Your task to perform on an android device: change notification settings in the gmail app Image 0: 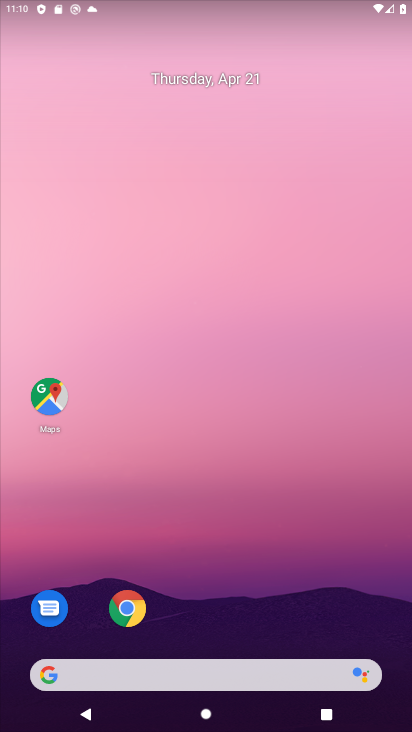
Step 0: drag from (208, 562) to (136, 54)
Your task to perform on an android device: change notification settings in the gmail app Image 1: 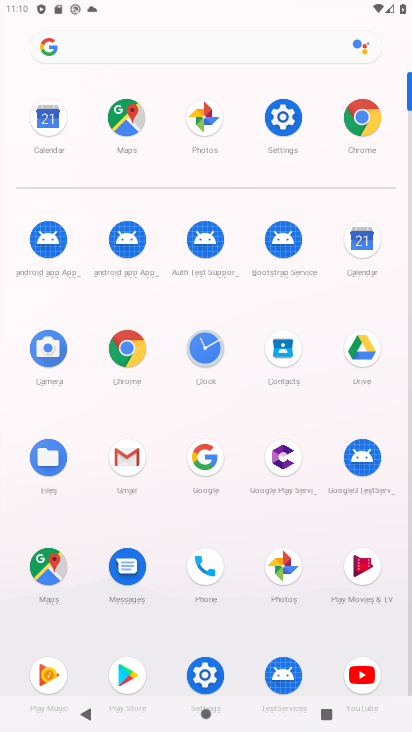
Step 1: click (133, 454)
Your task to perform on an android device: change notification settings in the gmail app Image 2: 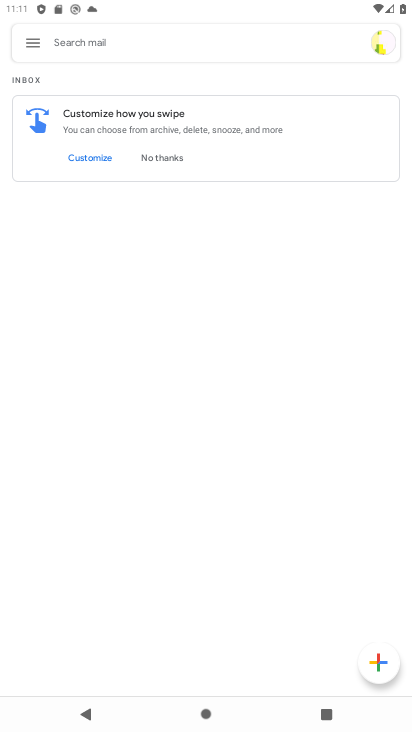
Step 2: click (31, 44)
Your task to perform on an android device: change notification settings in the gmail app Image 3: 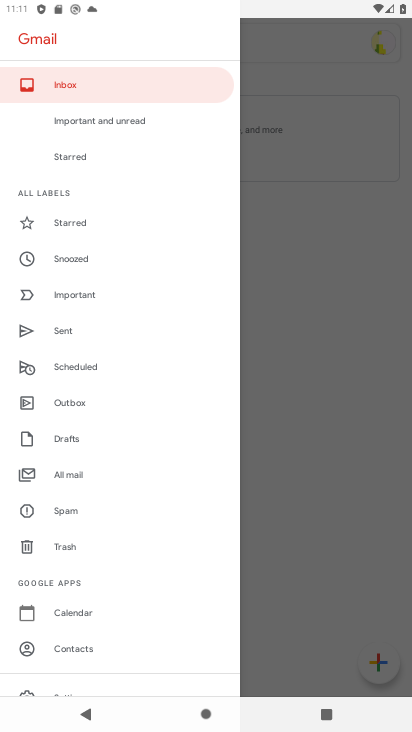
Step 3: drag from (102, 646) to (123, 375)
Your task to perform on an android device: change notification settings in the gmail app Image 4: 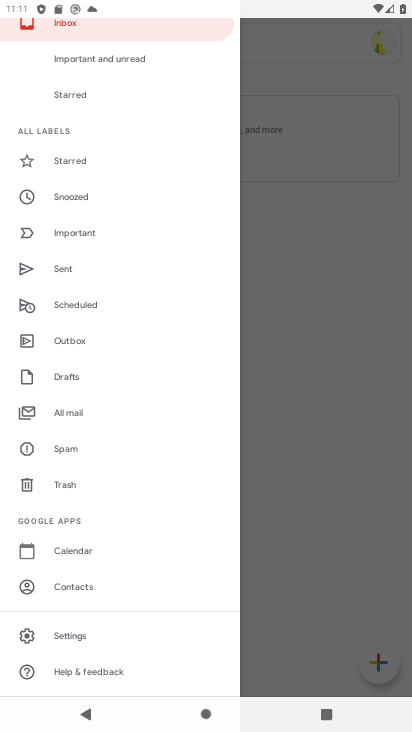
Step 4: click (62, 635)
Your task to perform on an android device: change notification settings in the gmail app Image 5: 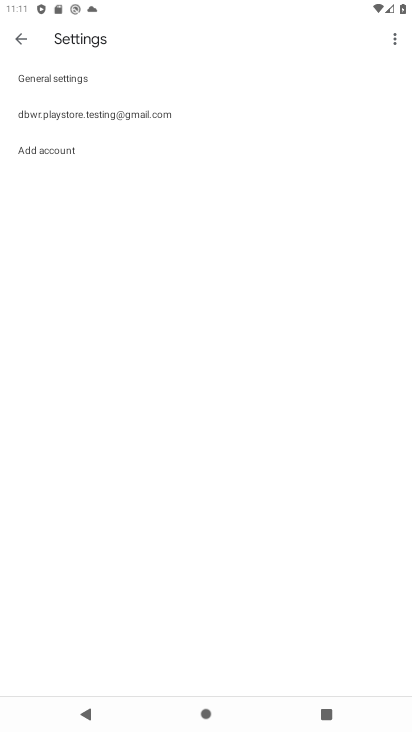
Step 5: click (121, 116)
Your task to perform on an android device: change notification settings in the gmail app Image 6: 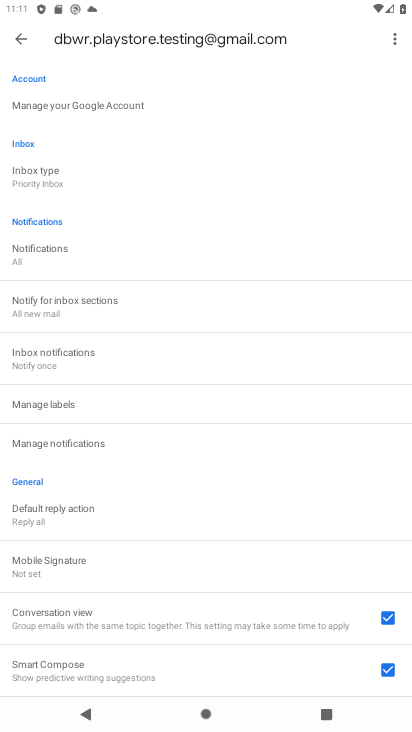
Step 6: click (53, 442)
Your task to perform on an android device: change notification settings in the gmail app Image 7: 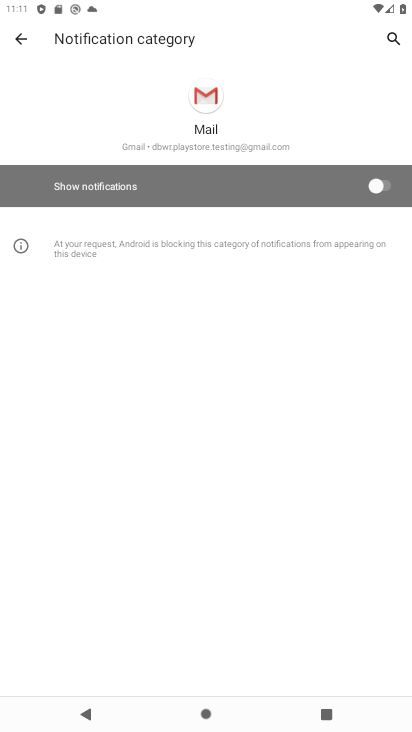
Step 7: click (372, 184)
Your task to perform on an android device: change notification settings in the gmail app Image 8: 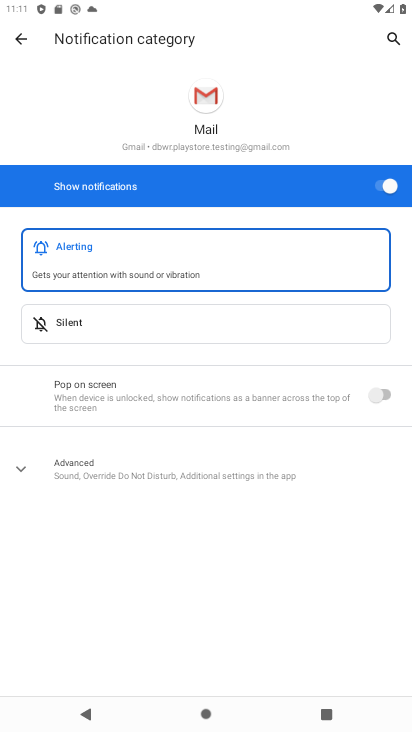
Step 8: task complete